Your task to perform on an android device: toggle notifications settings in the gmail app Image 0: 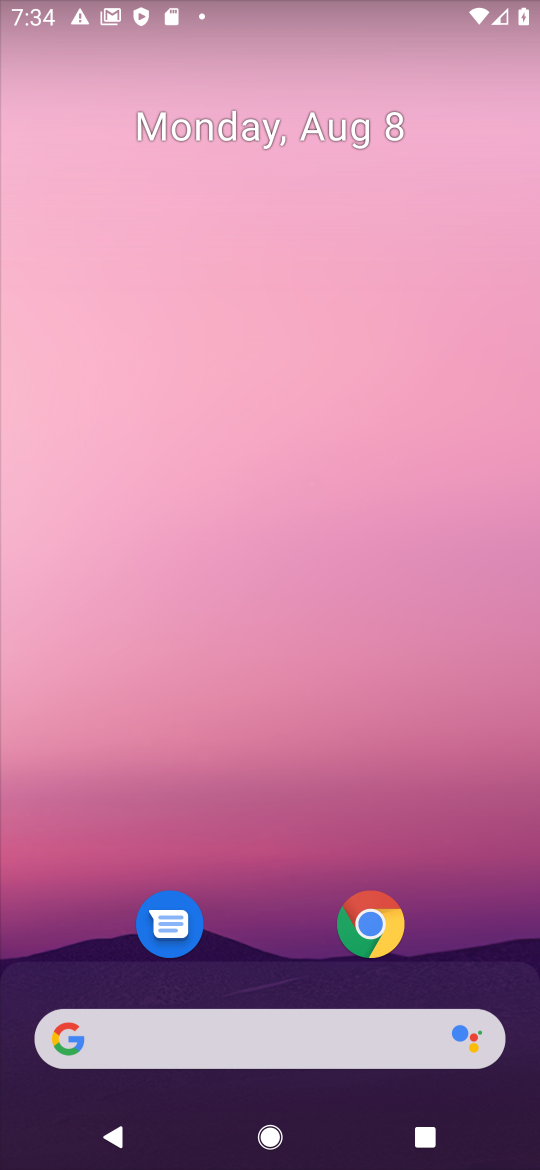
Step 0: drag from (352, 23) to (514, 755)
Your task to perform on an android device: toggle notifications settings in the gmail app Image 1: 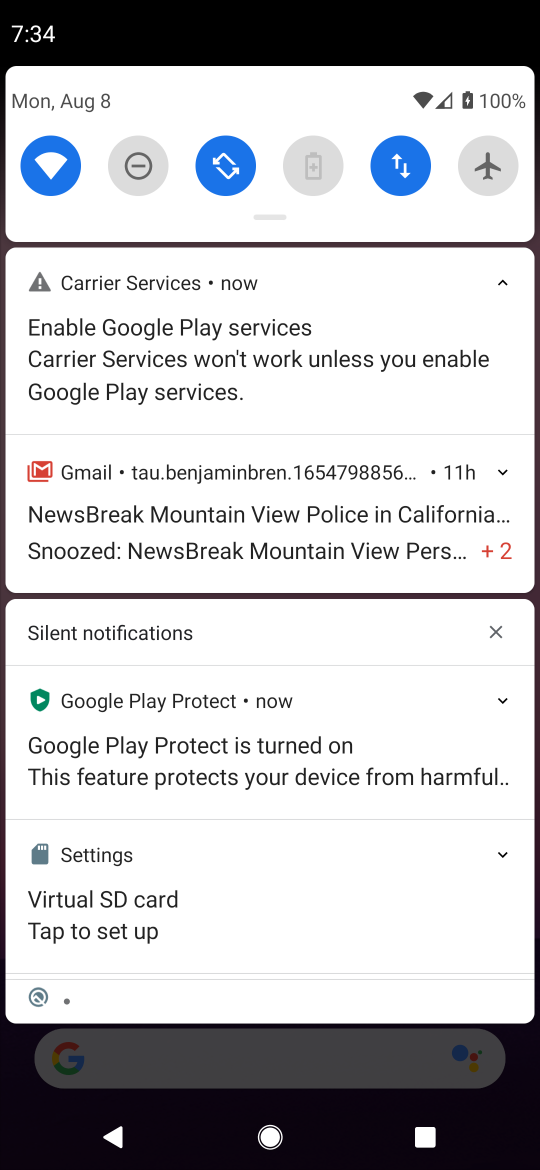
Step 1: drag from (308, 745) to (525, 234)
Your task to perform on an android device: toggle notifications settings in the gmail app Image 2: 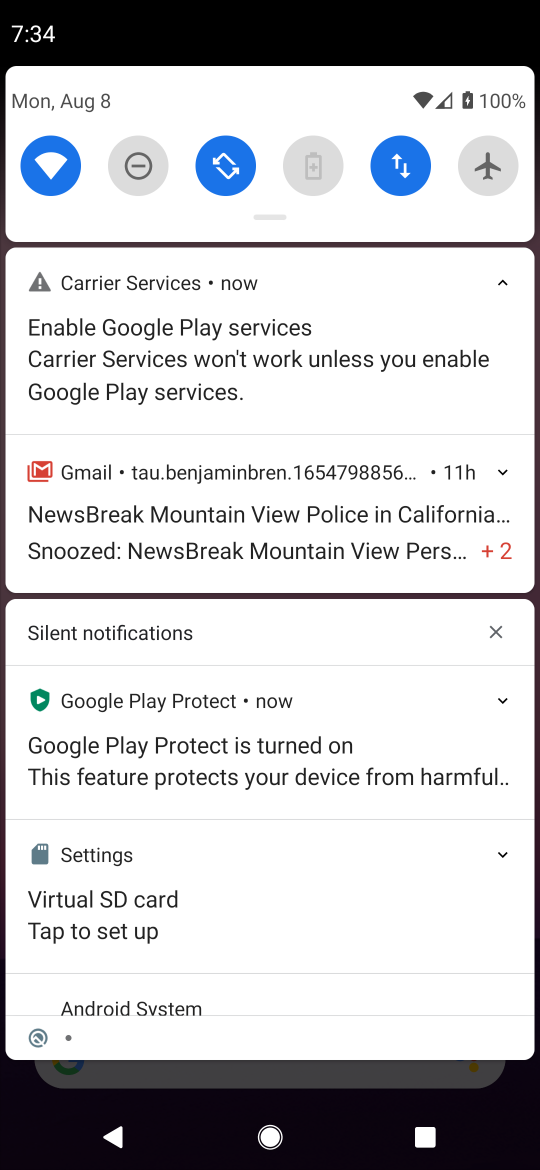
Step 2: press home button
Your task to perform on an android device: toggle notifications settings in the gmail app Image 3: 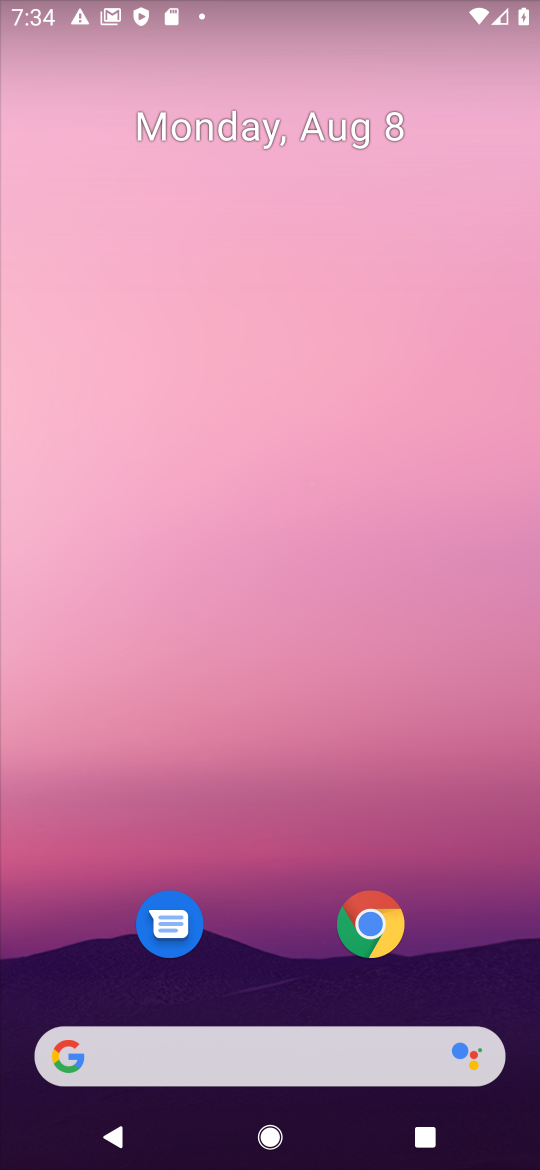
Step 3: drag from (238, 990) to (293, 214)
Your task to perform on an android device: toggle notifications settings in the gmail app Image 4: 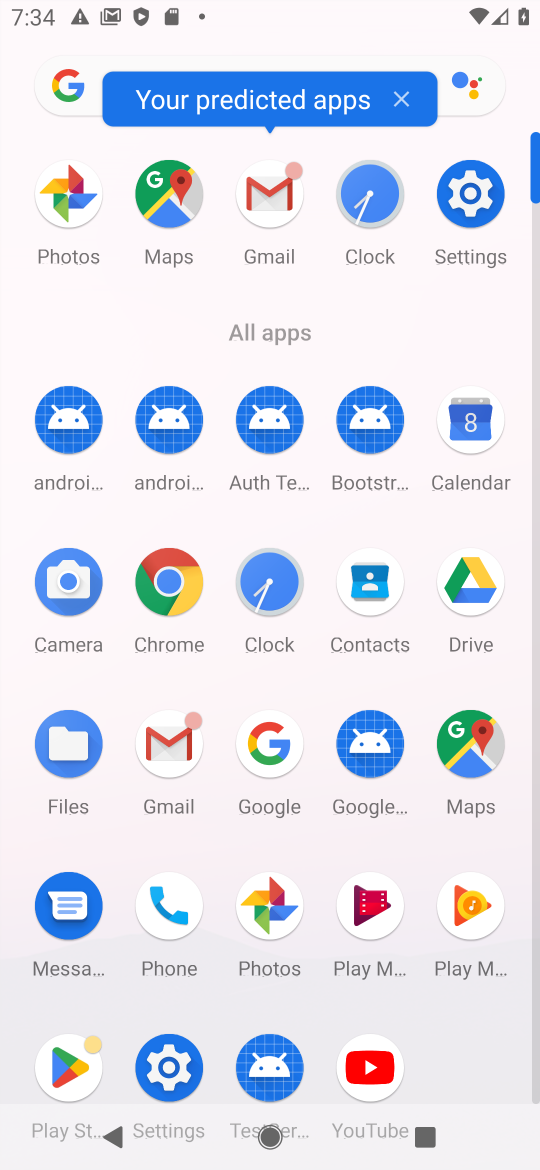
Step 4: click (163, 739)
Your task to perform on an android device: toggle notifications settings in the gmail app Image 5: 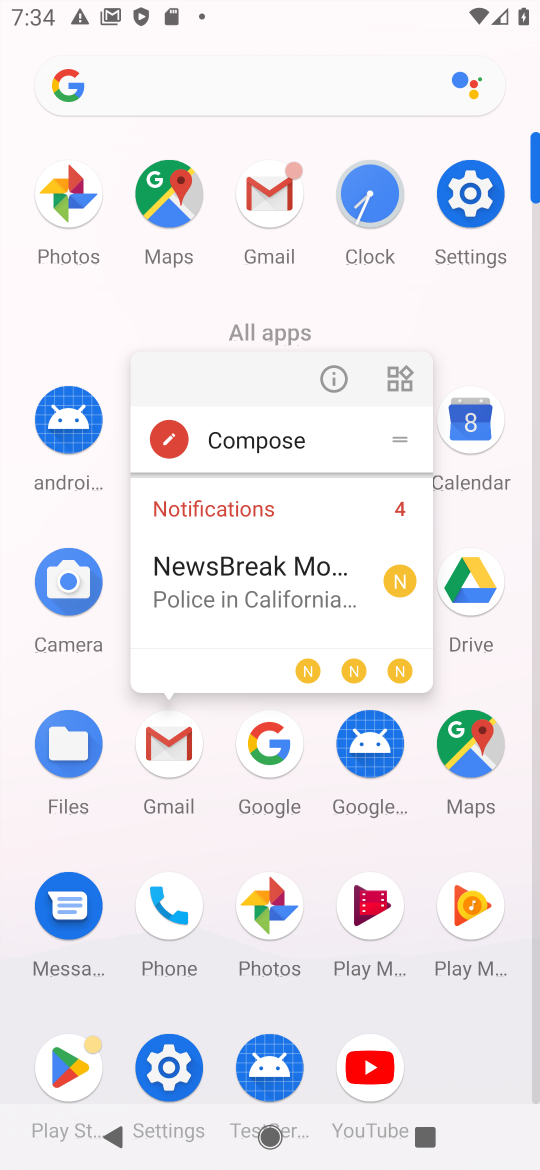
Step 5: click (329, 384)
Your task to perform on an android device: toggle notifications settings in the gmail app Image 6: 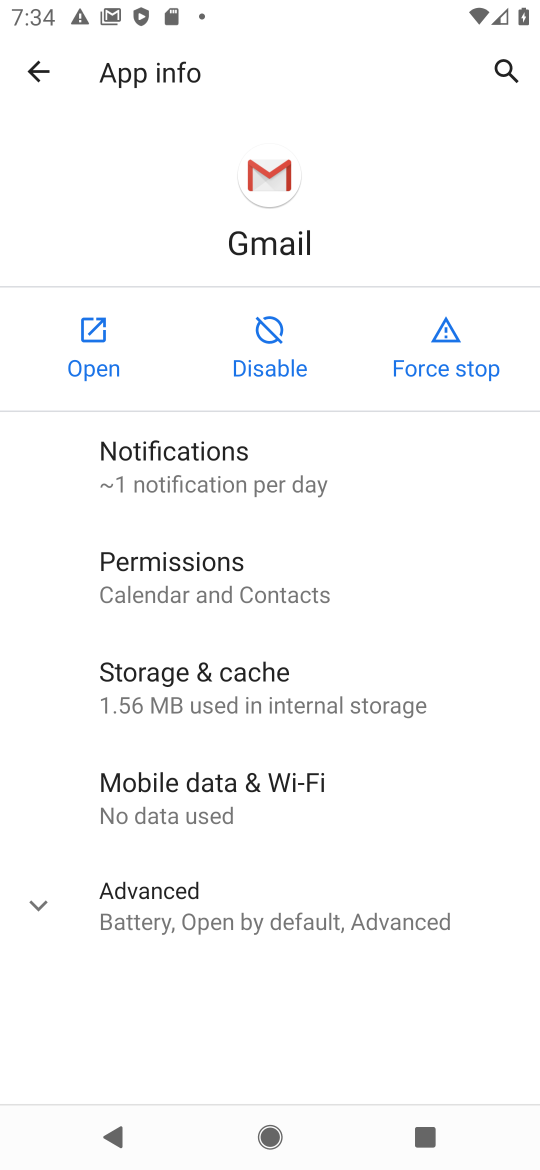
Step 6: click (90, 336)
Your task to perform on an android device: toggle notifications settings in the gmail app Image 7: 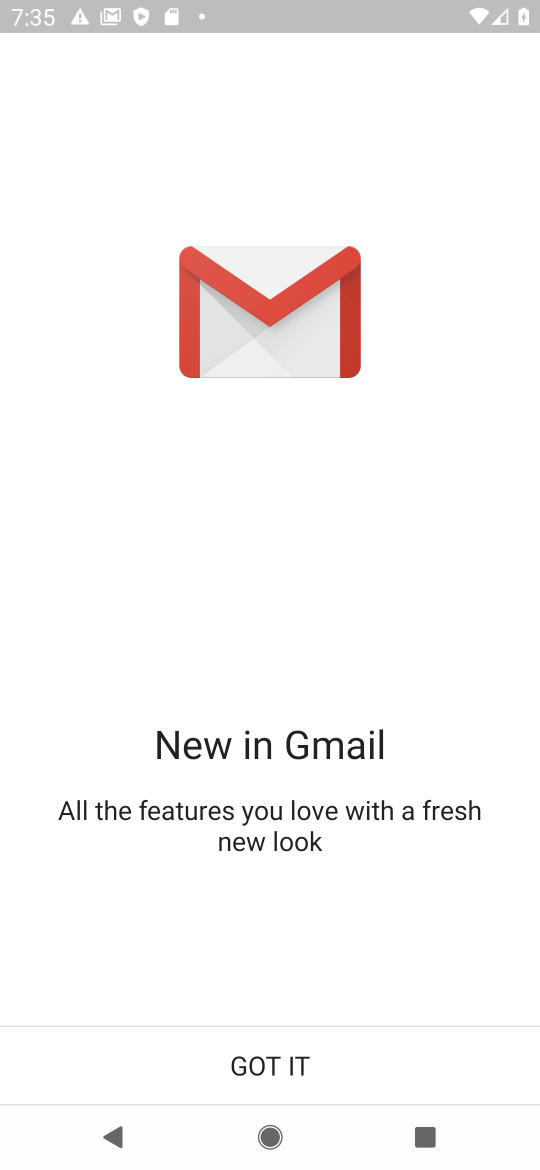
Step 7: click (288, 1074)
Your task to perform on an android device: toggle notifications settings in the gmail app Image 8: 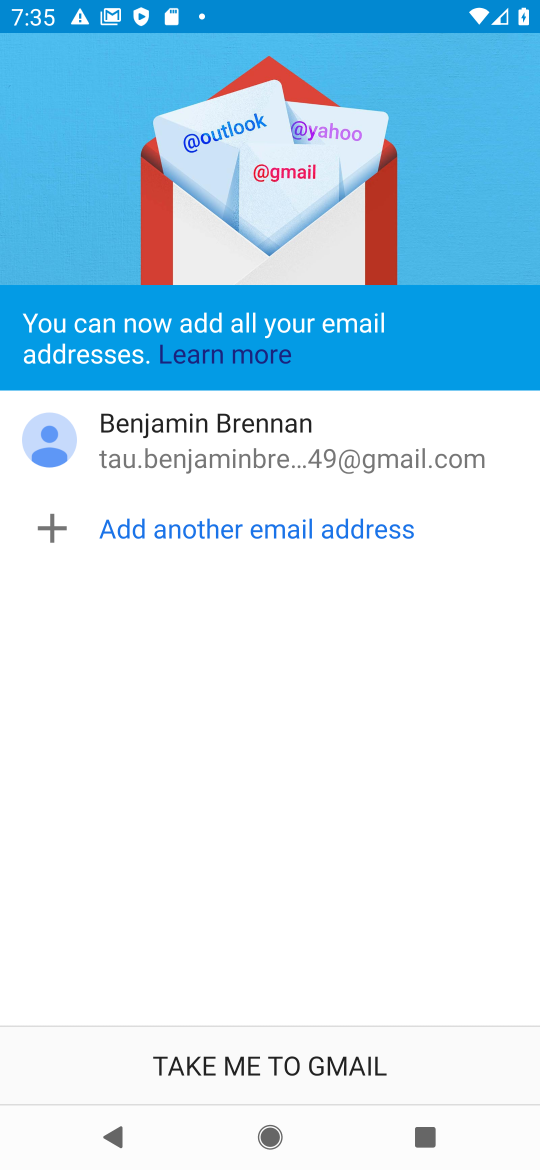
Step 8: click (271, 1074)
Your task to perform on an android device: toggle notifications settings in the gmail app Image 9: 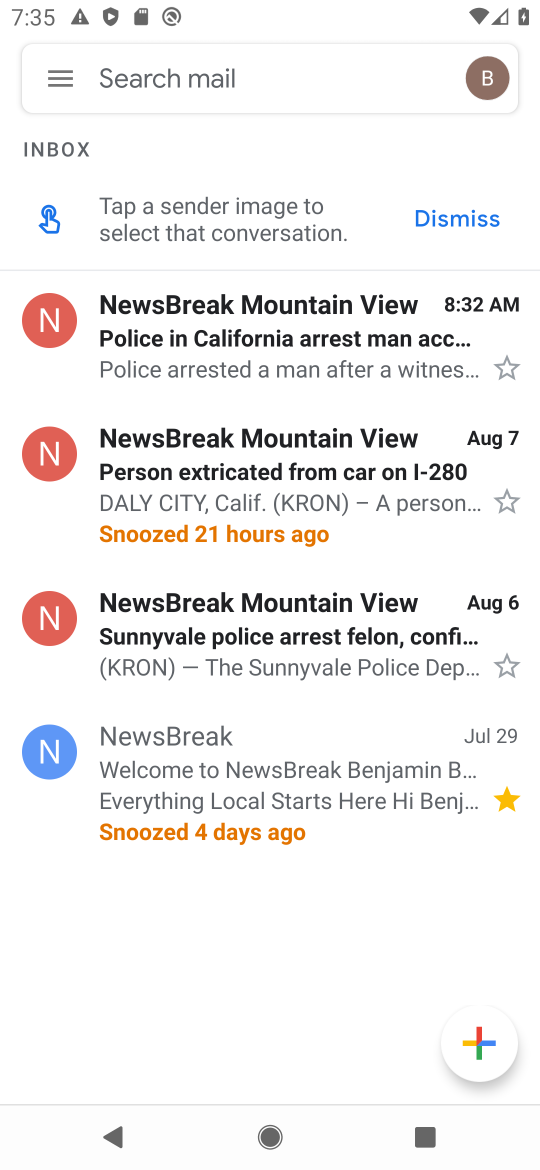
Step 9: click (62, 79)
Your task to perform on an android device: toggle notifications settings in the gmail app Image 10: 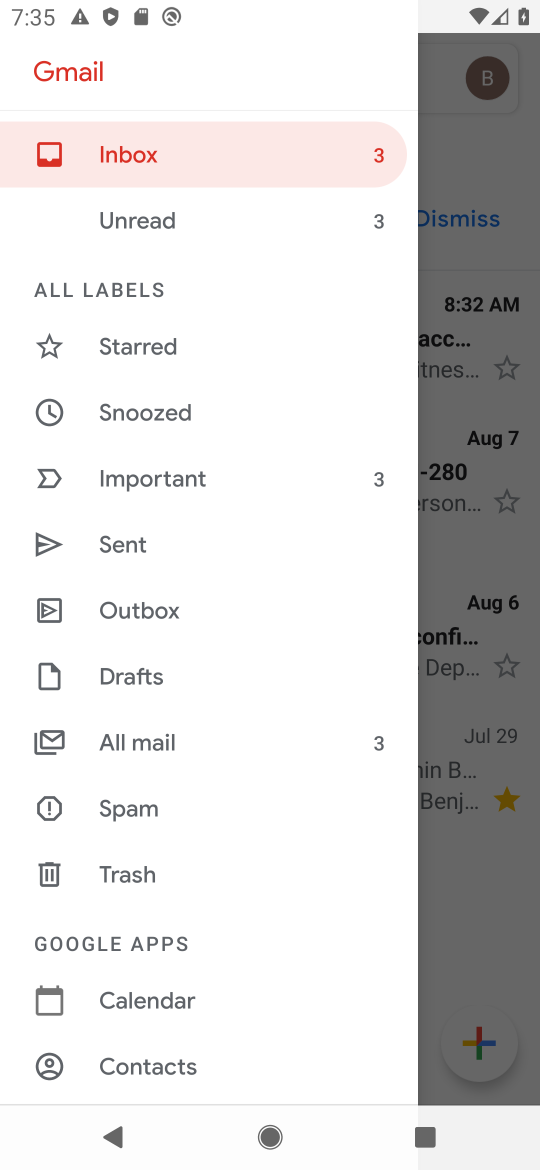
Step 10: drag from (191, 993) to (253, 23)
Your task to perform on an android device: toggle notifications settings in the gmail app Image 11: 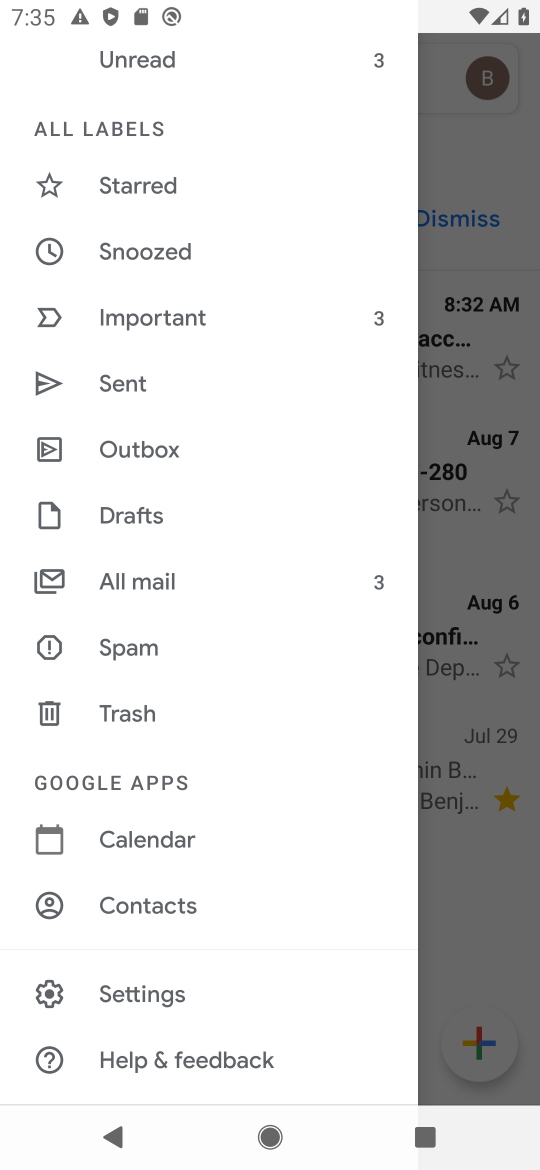
Step 11: click (110, 982)
Your task to perform on an android device: toggle notifications settings in the gmail app Image 12: 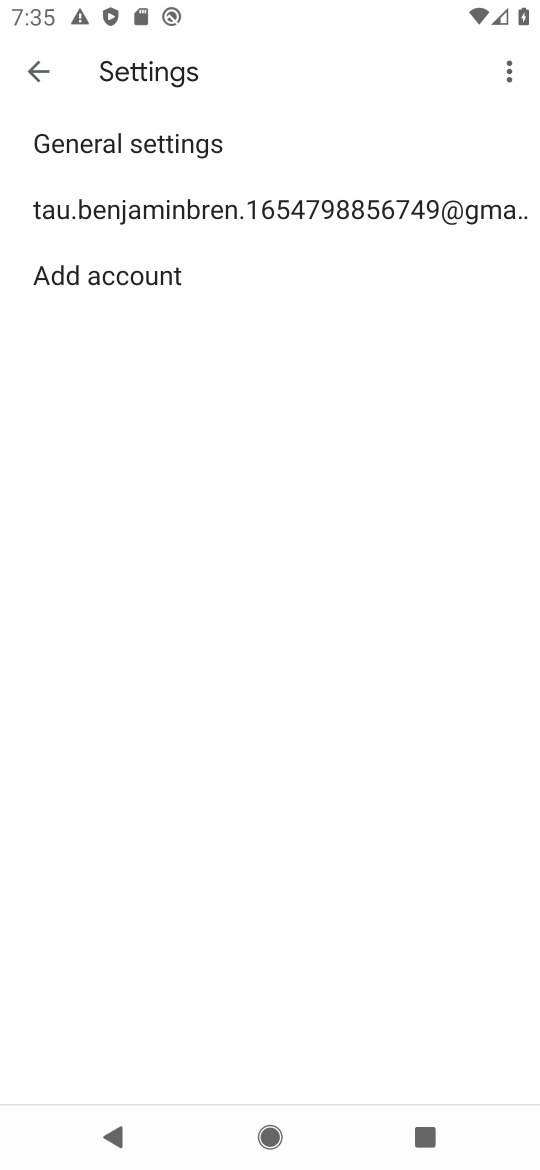
Step 12: click (237, 230)
Your task to perform on an android device: toggle notifications settings in the gmail app Image 13: 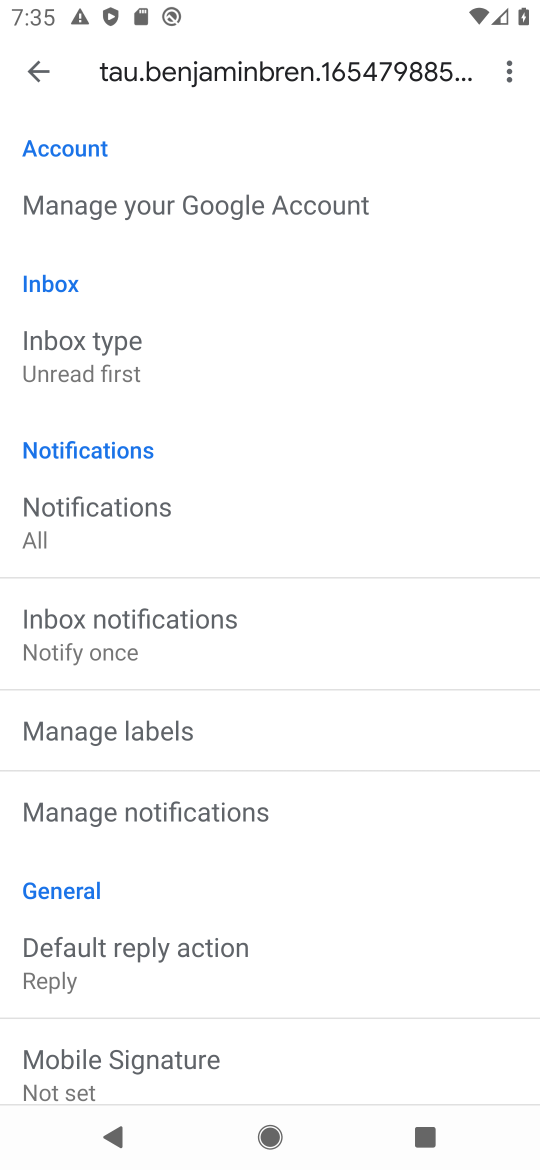
Step 13: click (180, 801)
Your task to perform on an android device: toggle notifications settings in the gmail app Image 14: 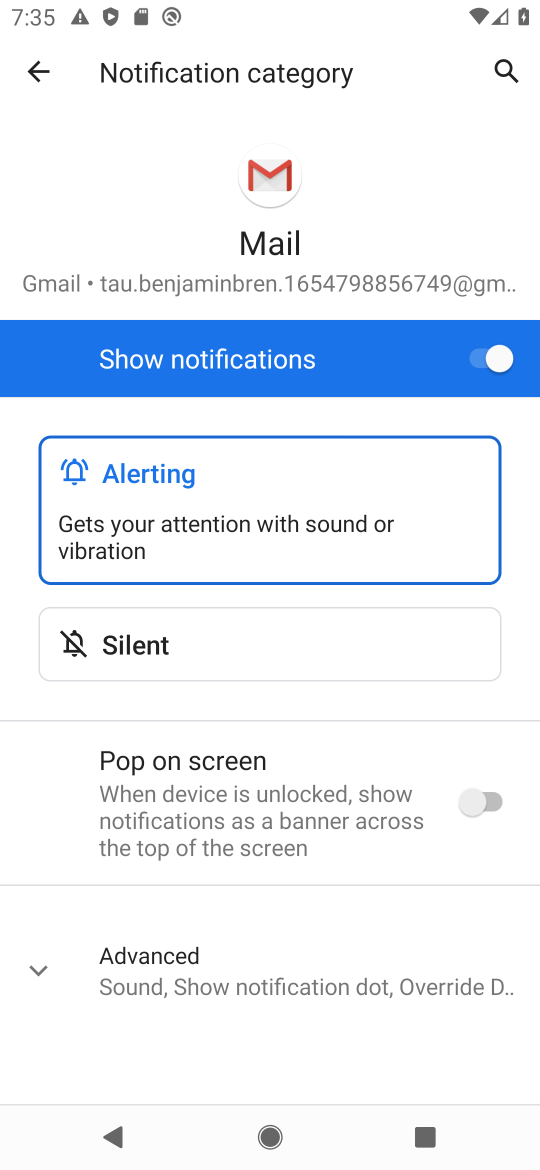
Step 14: click (452, 367)
Your task to perform on an android device: toggle notifications settings in the gmail app Image 15: 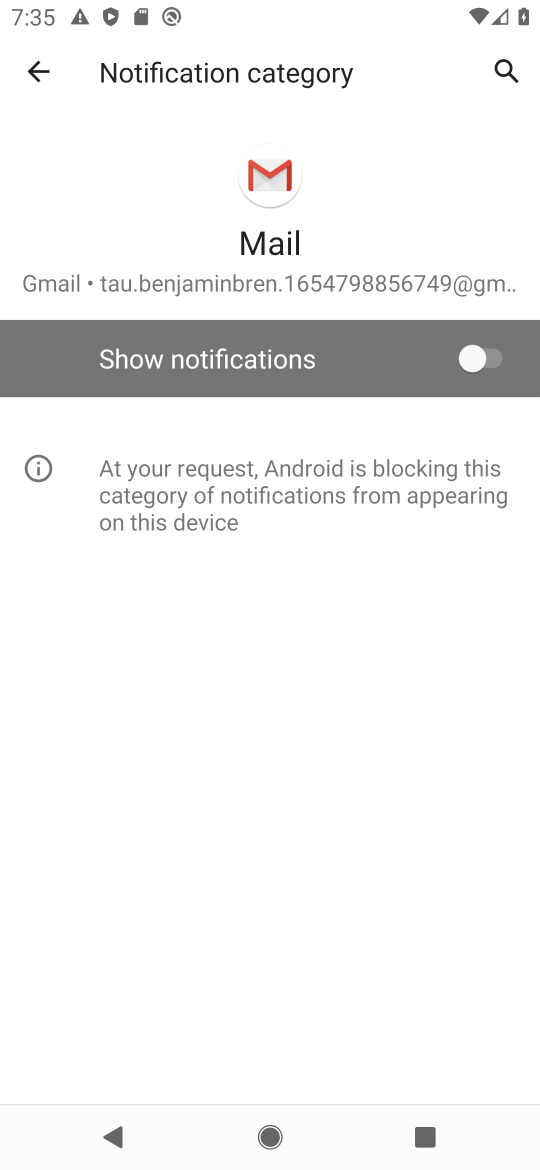
Step 15: task complete